Your task to perform on an android device: Open settings on Google Maps Image 0: 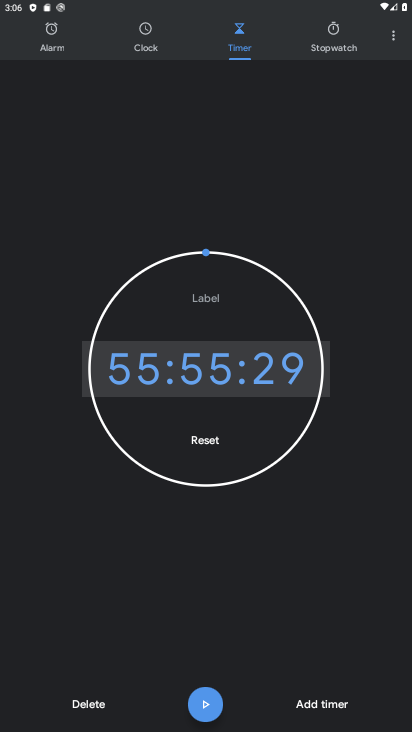
Step 0: press back button
Your task to perform on an android device: Open settings on Google Maps Image 1: 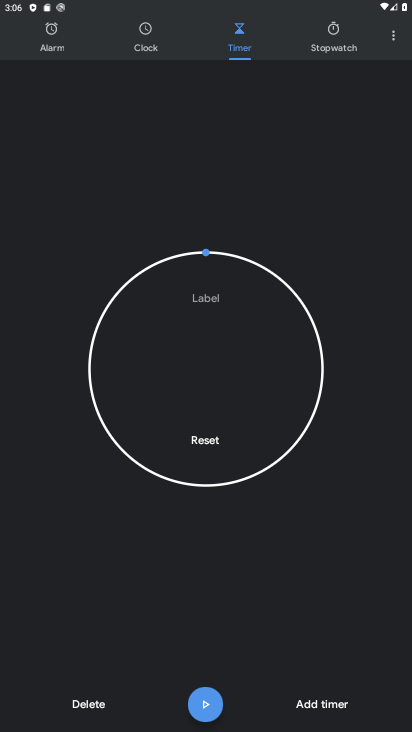
Step 1: press back button
Your task to perform on an android device: Open settings on Google Maps Image 2: 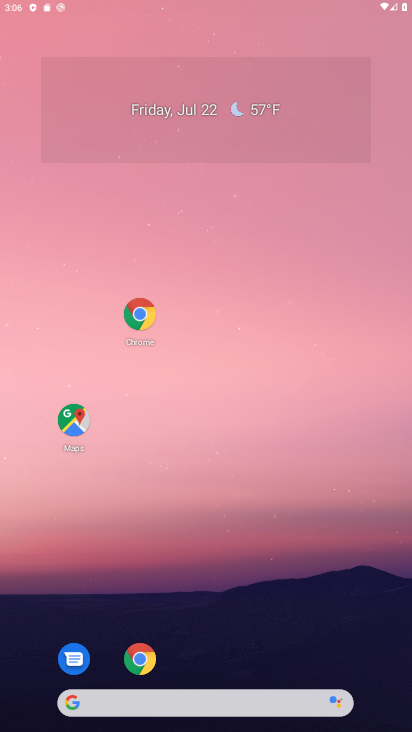
Step 2: press back button
Your task to perform on an android device: Open settings on Google Maps Image 3: 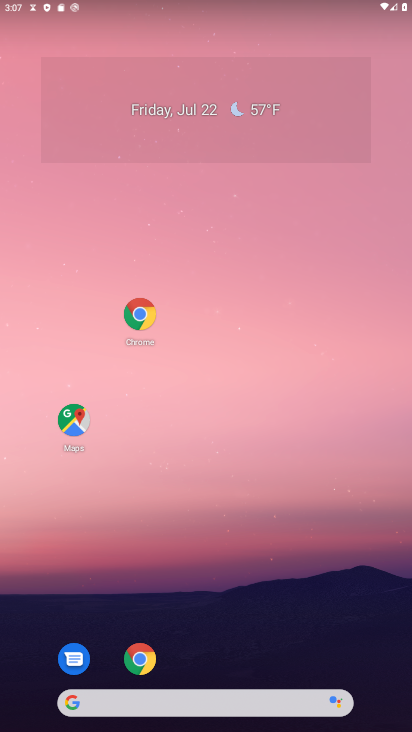
Step 3: drag from (235, 470) to (149, 35)
Your task to perform on an android device: Open settings on Google Maps Image 4: 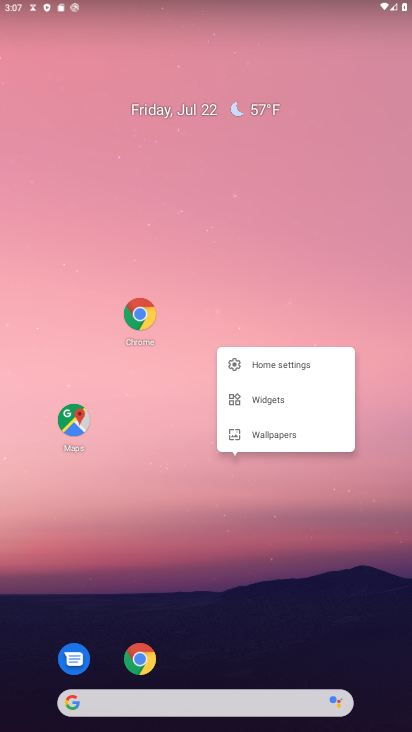
Step 4: drag from (154, 400) to (222, 72)
Your task to perform on an android device: Open settings on Google Maps Image 5: 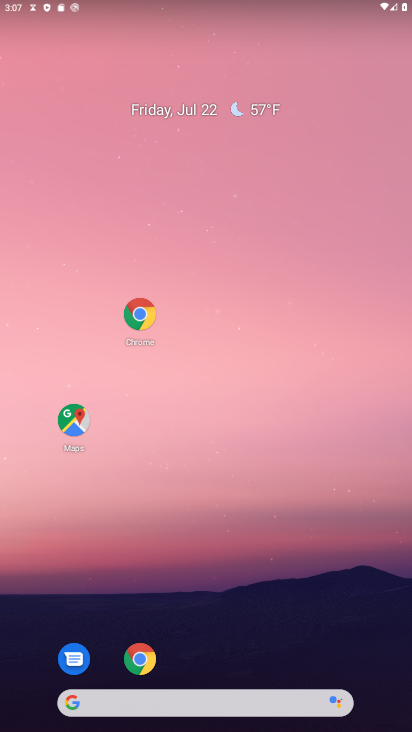
Step 5: drag from (113, 85) to (130, 4)
Your task to perform on an android device: Open settings on Google Maps Image 6: 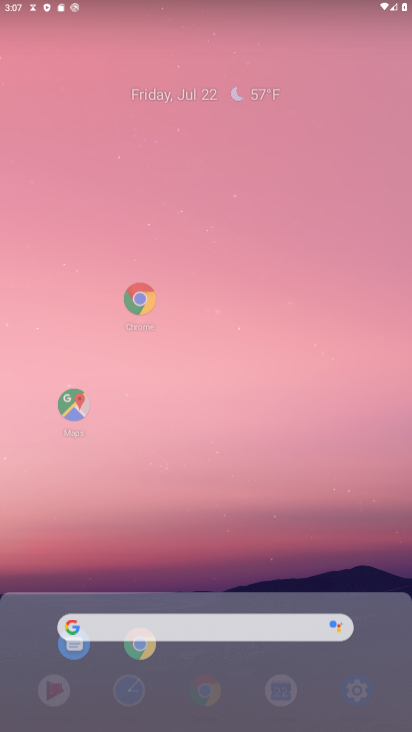
Step 6: click (225, 8)
Your task to perform on an android device: Open settings on Google Maps Image 7: 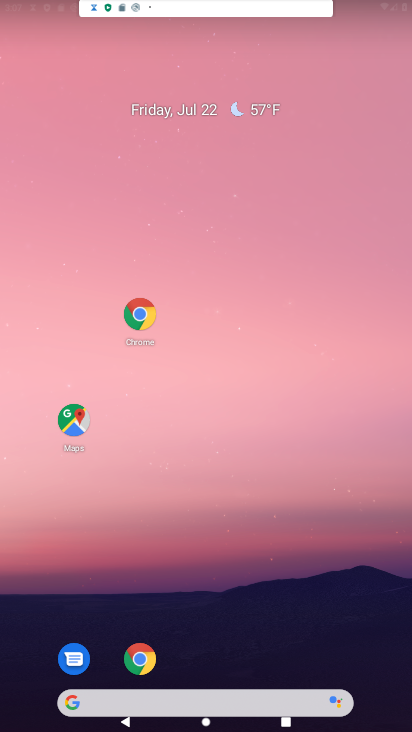
Step 7: drag from (212, 245) to (134, 18)
Your task to perform on an android device: Open settings on Google Maps Image 8: 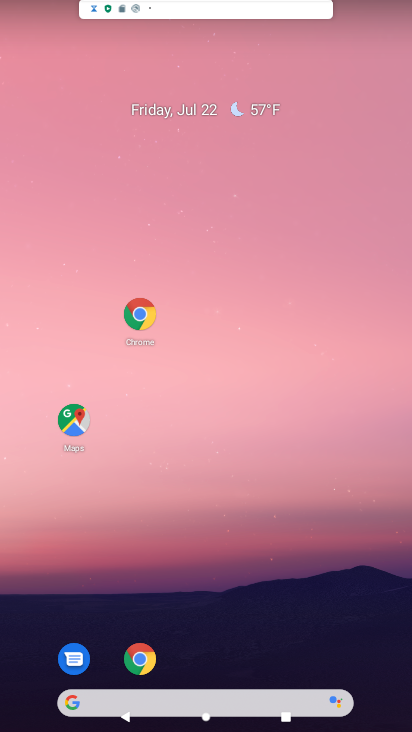
Step 8: drag from (170, 428) to (65, 25)
Your task to perform on an android device: Open settings on Google Maps Image 9: 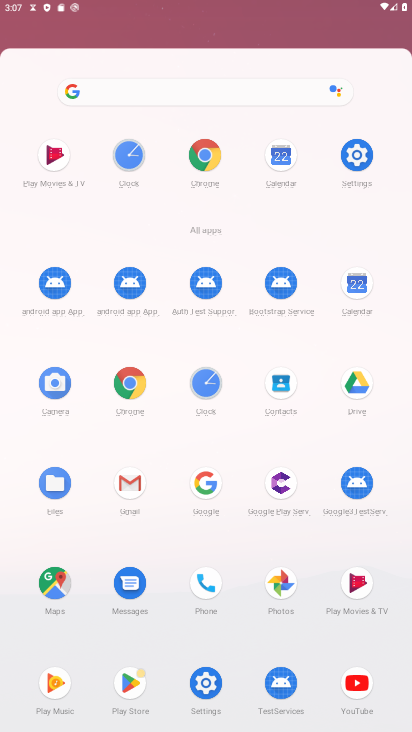
Step 9: click (97, 22)
Your task to perform on an android device: Open settings on Google Maps Image 10: 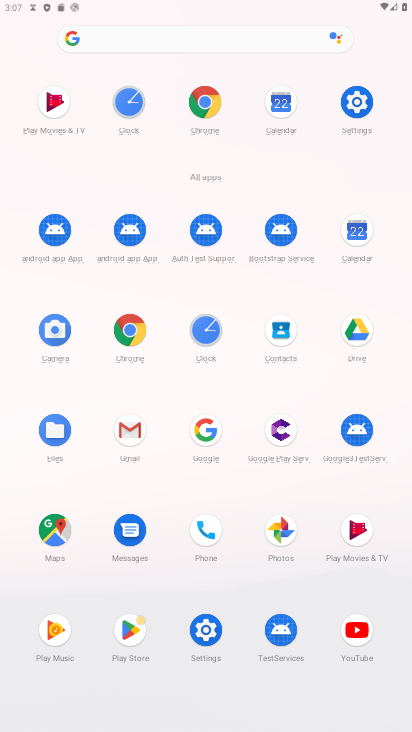
Step 10: drag from (153, 576) to (175, 53)
Your task to perform on an android device: Open settings on Google Maps Image 11: 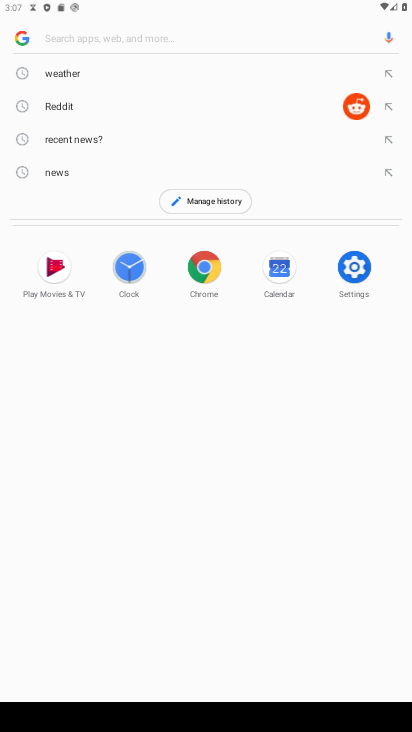
Step 11: click (205, 260)
Your task to perform on an android device: Open settings on Google Maps Image 12: 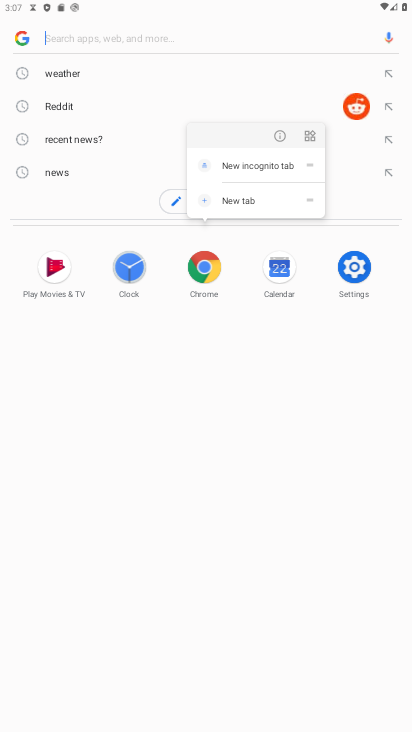
Step 12: press back button
Your task to perform on an android device: Open settings on Google Maps Image 13: 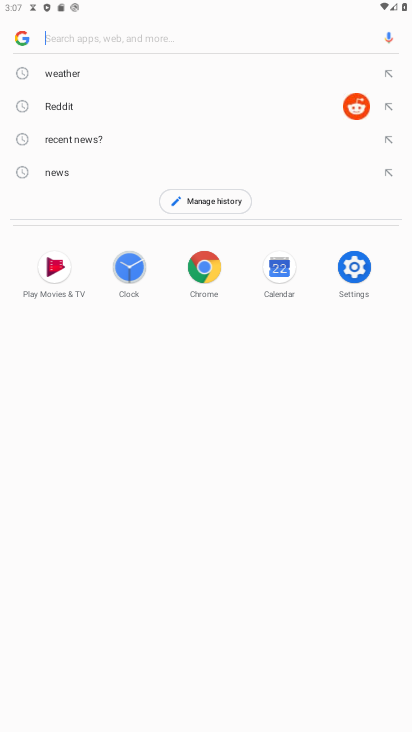
Step 13: press back button
Your task to perform on an android device: Open settings on Google Maps Image 14: 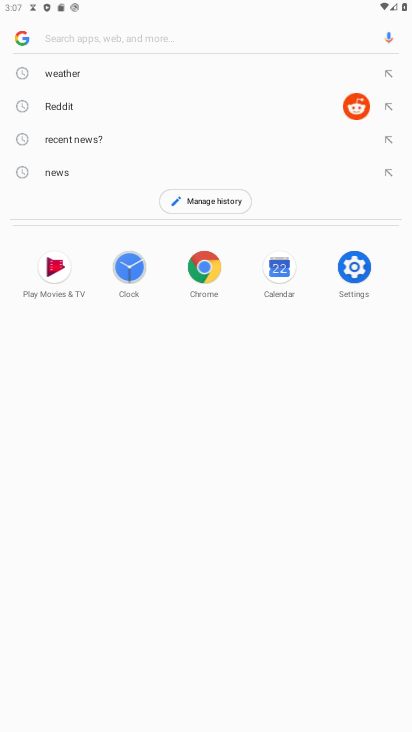
Step 14: press back button
Your task to perform on an android device: Open settings on Google Maps Image 15: 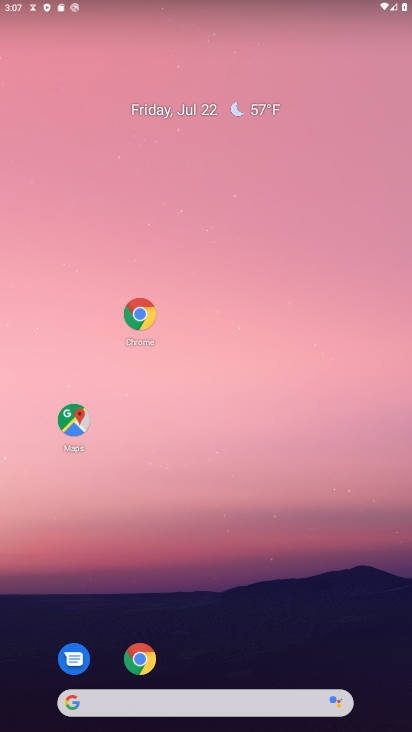
Step 15: drag from (265, 680) to (251, 103)
Your task to perform on an android device: Open settings on Google Maps Image 16: 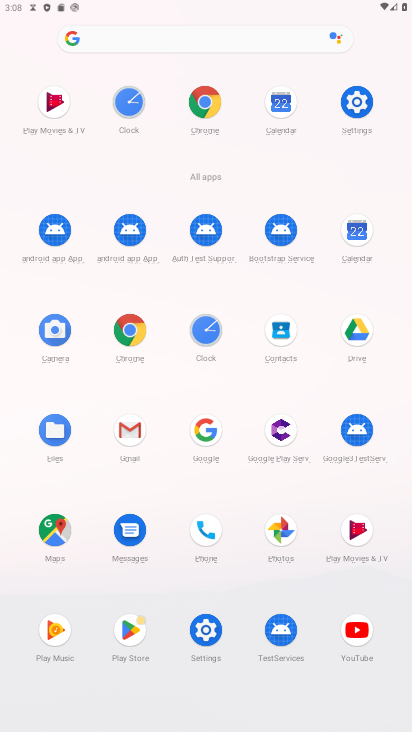
Step 16: click (47, 533)
Your task to perform on an android device: Open settings on Google Maps Image 17: 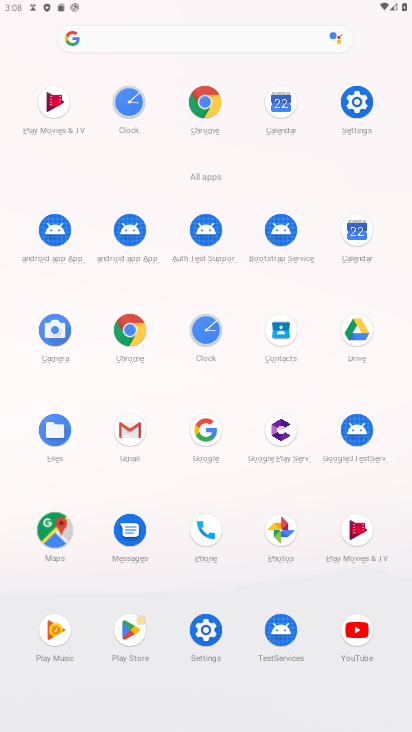
Step 17: click (49, 530)
Your task to perform on an android device: Open settings on Google Maps Image 18: 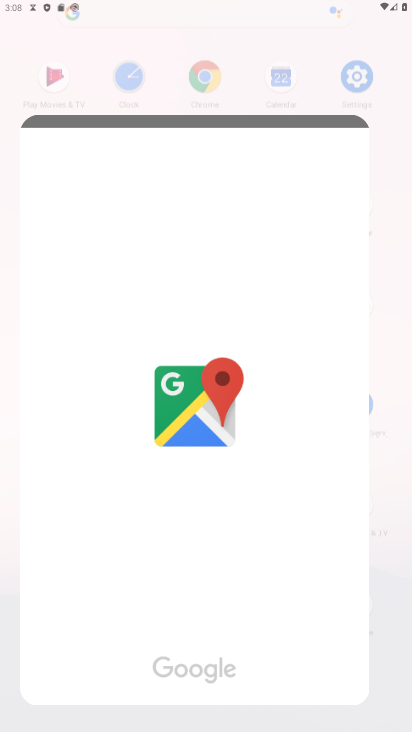
Step 18: click (55, 528)
Your task to perform on an android device: Open settings on Google Maps Image 19: 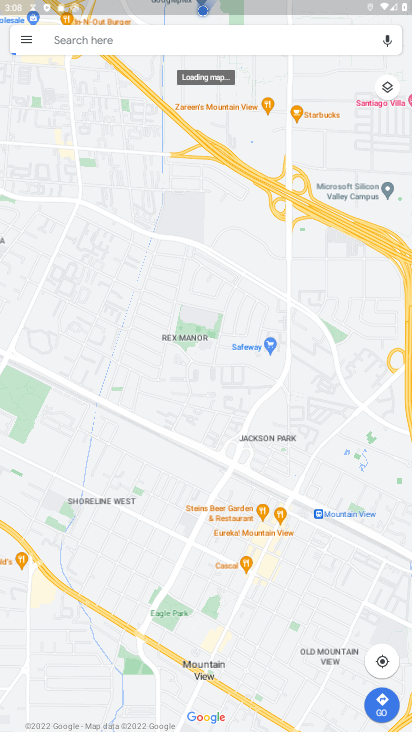
Step 19: click (70, 224)
Your task to perform on an android device: Open settings on Google Maps Image 20: 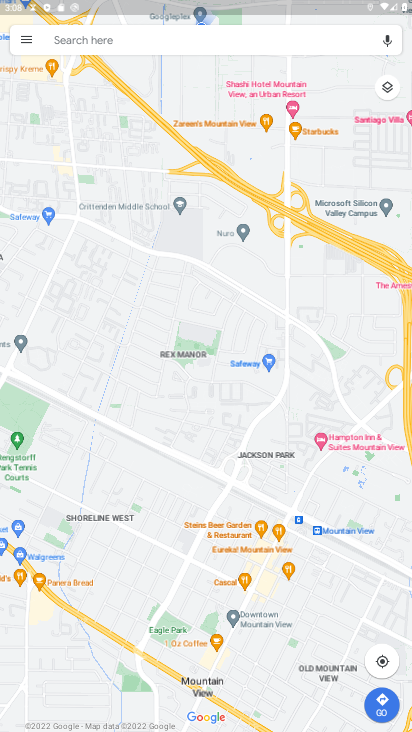
Step 20: click (19, 33)
Your task to perform on an android device: Open settings on Google Maps Image 21: 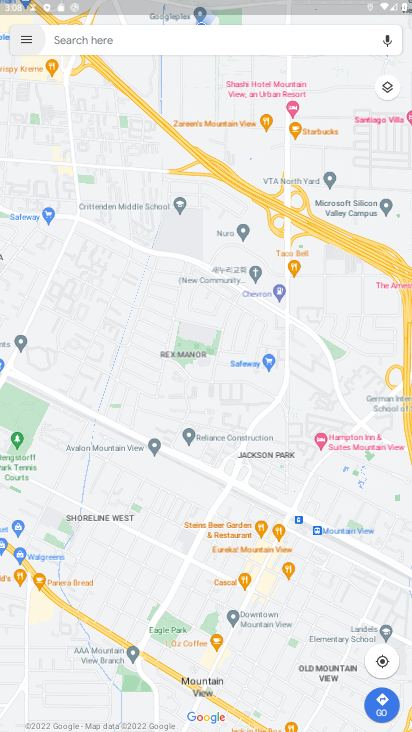
Step 21: click (20, 33)
Your task to perform on an android device: Open settings on Google Maps Image 22: 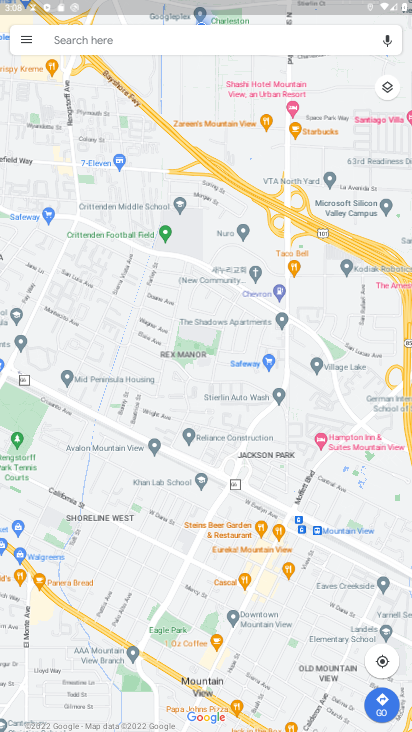
Step 22: click (21, 44)
Your task to perform on an android device: Open settings on Google Maps Image 23: 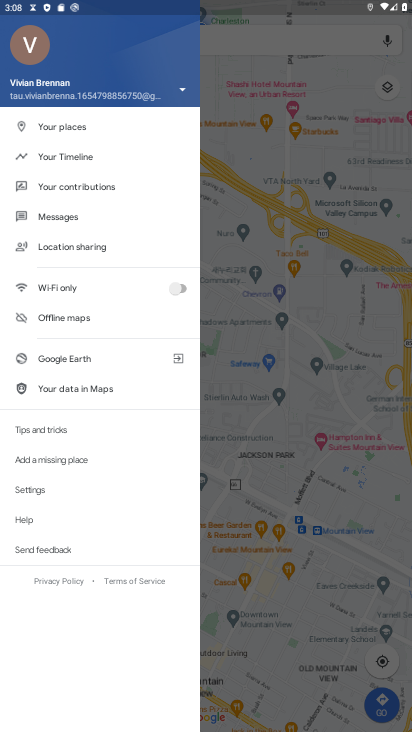
Step 23: click (62, 147)
Your task to perform on an android device: Open settings on Google Maps Image 24: 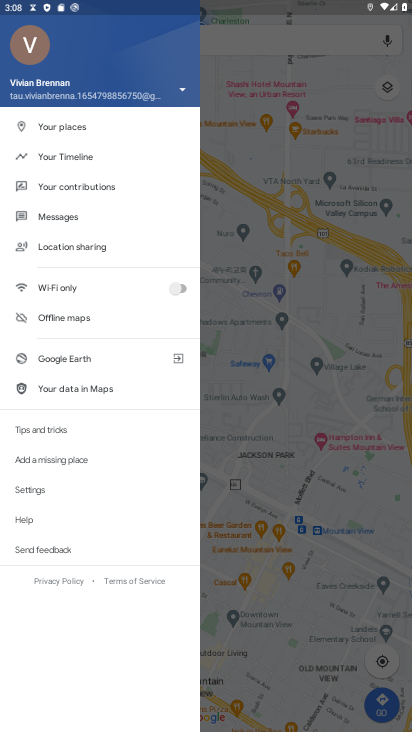
Step 24: click (63, 152)
Your task to perform on an android device: Open settings on Google Maps Image 25: 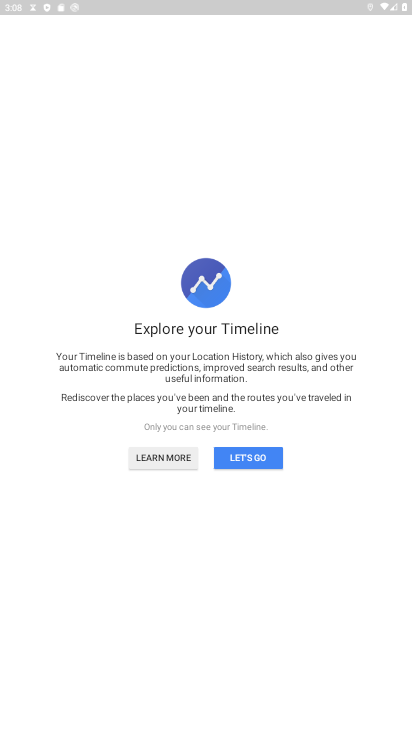
Step 25: click (70, 157)
Your task to perform on an android device: Open settings on Google Maps Image 26: 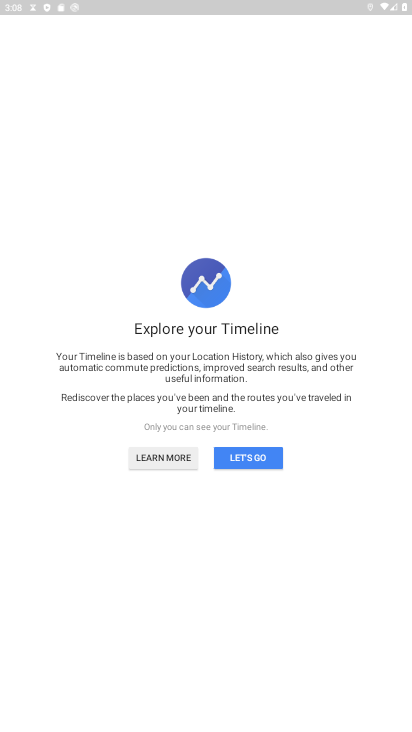
Step 26: task complete